Your task to perform on an android device: Open Google Image 0: 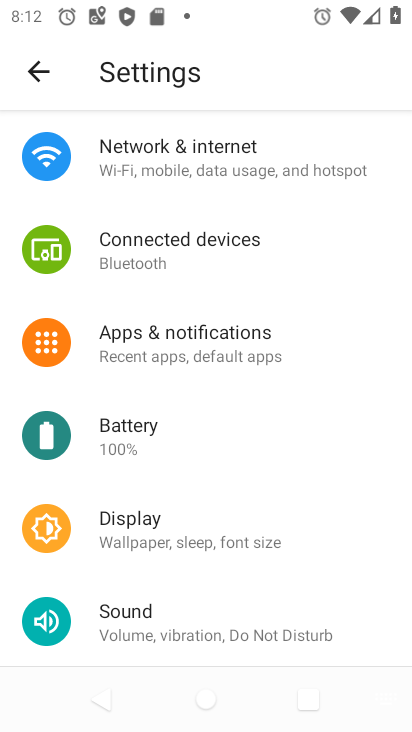
Step 0: press home button
Your task to perform on an android device: Open Google Image 1: 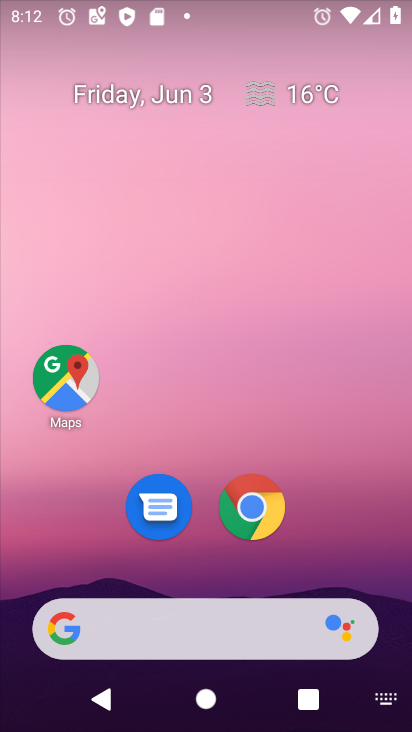
Step 1: drag from (357, 528) to (283, 22)
Your task to perform on an android device: Open Google Image 2: 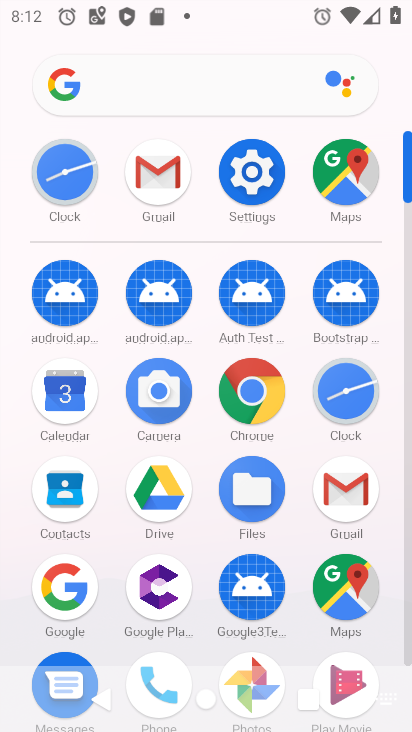
Step 2: click (80, 577)
Your task to perform on an android device: Open Google Image 3: 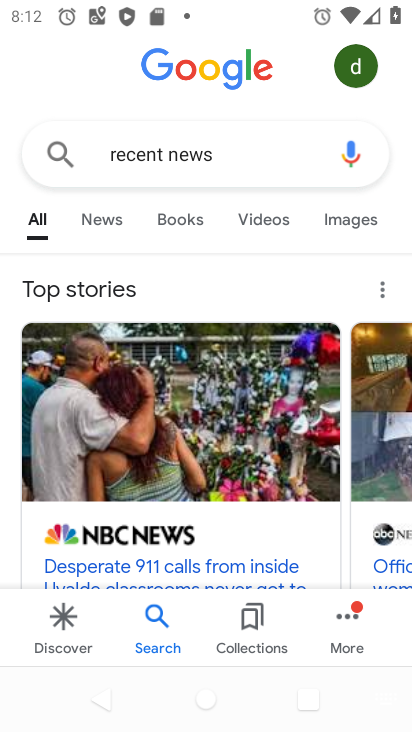
Step 3: task complete